Your task to perform on an android device: Open the phone app and click the voicemail tab. Image 0: 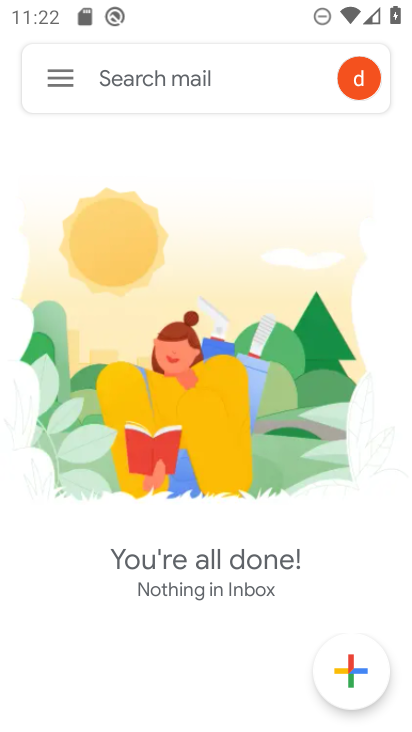
Step 0: press home button
Your task to perform on an android device: Open the phone app and click the voicemail tab. Image 1: 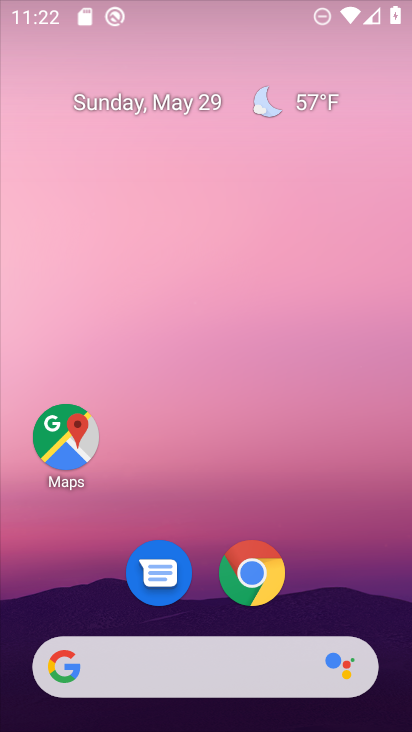
Step 1: drag from (150, 625) to (117, 46)
Your task to perform on an android device: Open the phone app and click the voicemail tab. Image 2: 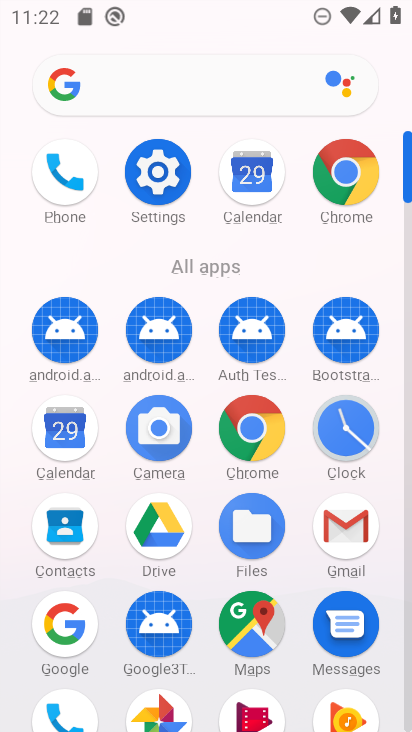
Step 2: click (59, 704)
Your task to perform on an android device: Open the phone app and click the voicemail tab. Image 3: 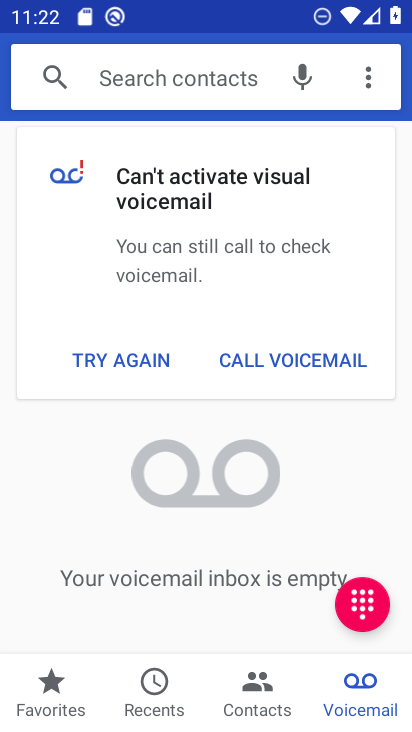
Step 3: task complete